Your task to perform on an android device: Go to wifi settings Image 0: 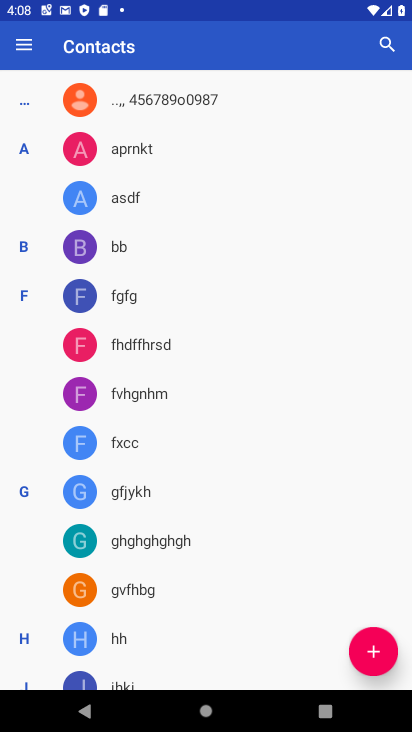
Step 0: drag from (171, 18) to (138, 298)
Your task to perform on an android device: Go to wifi settings Image 1: 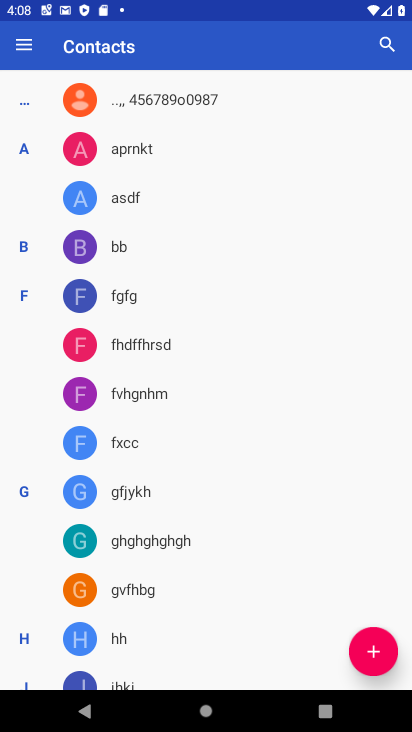
Step 1: drag from (29, 97) to (34, 388)
Your task to perform on an android device: Go to wifi settings Image 2: 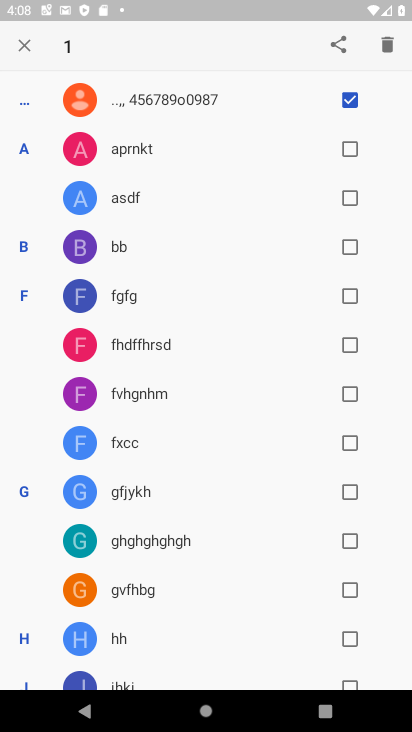
Step 2: press home button
Your task to perform on an android device: Go to wifi settings Image 3: 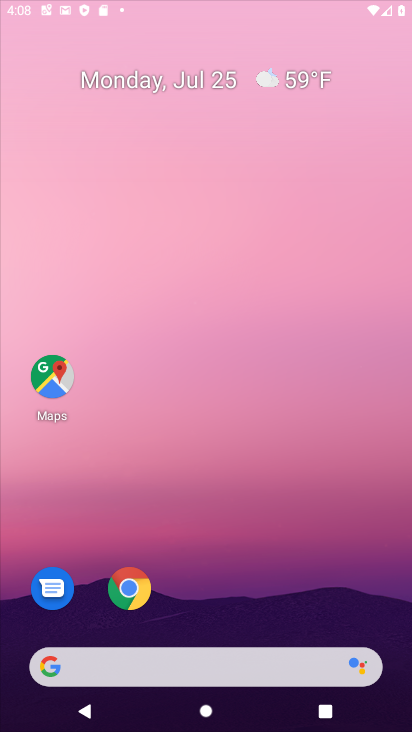
Step 3: drag from (269, 2) to (299, 440)
Your task to perform on an android device: Go to wifi settings Image 4: 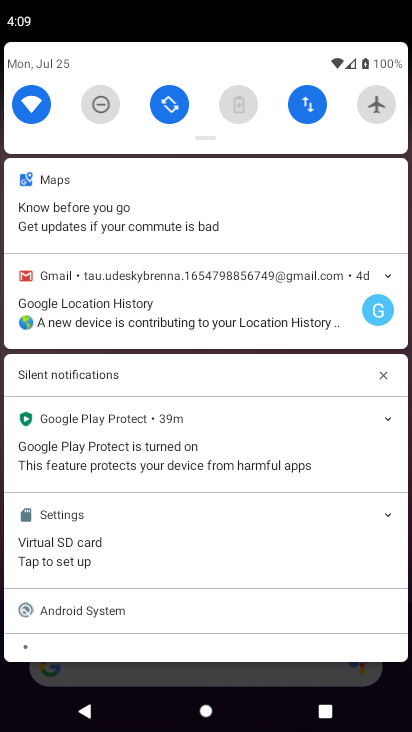
Step 4: click (29, 91)
Your task to perform on an android device: Go to wifi settings Image 5: 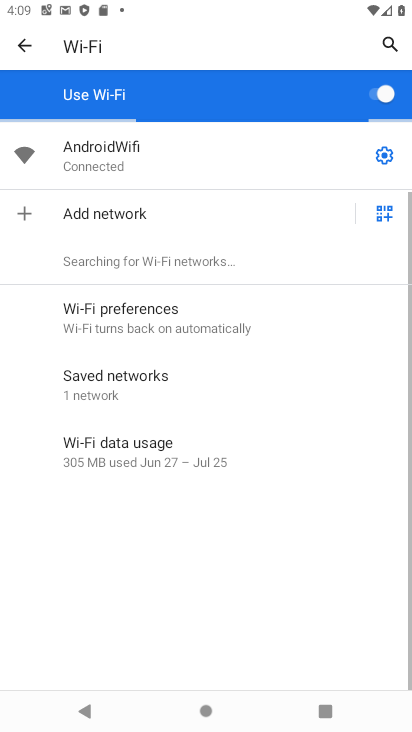
Step 5: task complete